Your task to perform on an android device: Open network settings Image 0: 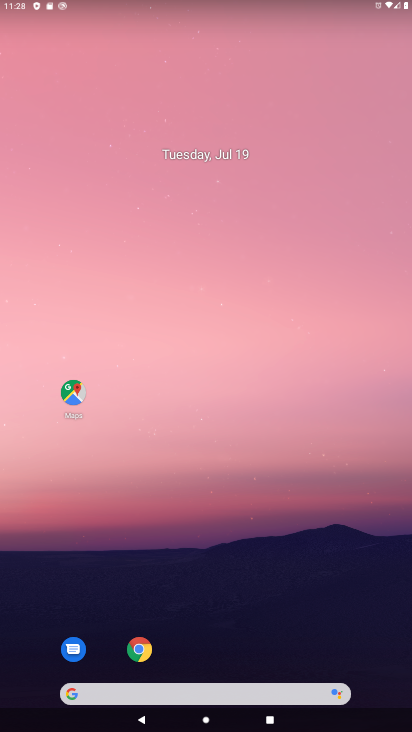
Step 0: drag from (292, 583) to (270, 134)
Your task to perform on an android device: Open network settings Image 1: 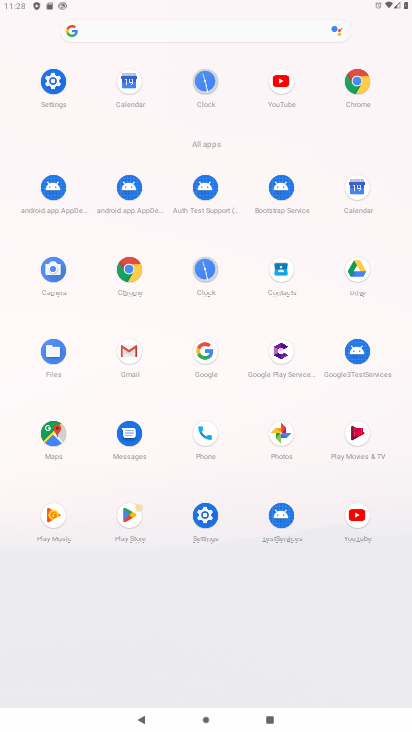
Step 1: click (53, 81)
Your task to perform on an android device: Open network settings Image 2: 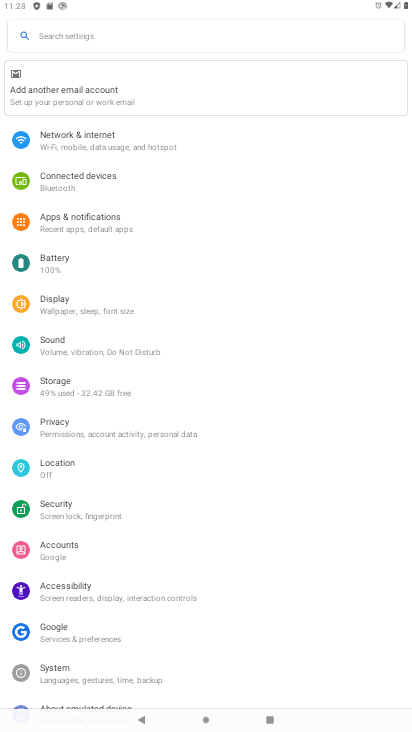
Step 2: click (97, 145)
Your task to perform on an android device: Open network settings Image 3: 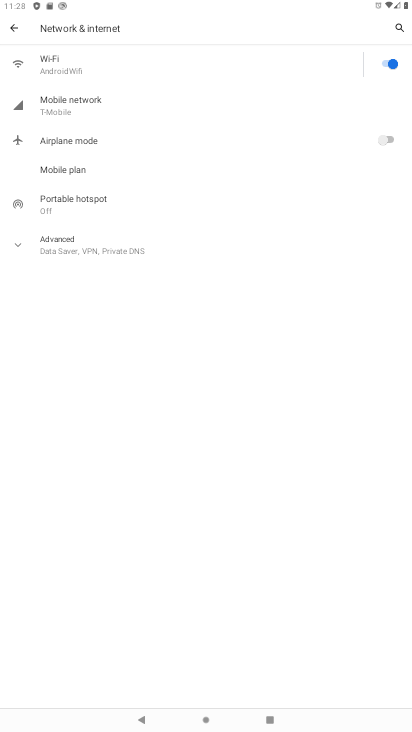
Step 3: task complete